Your task to perform on an android device: install app "Google News" Image 0: 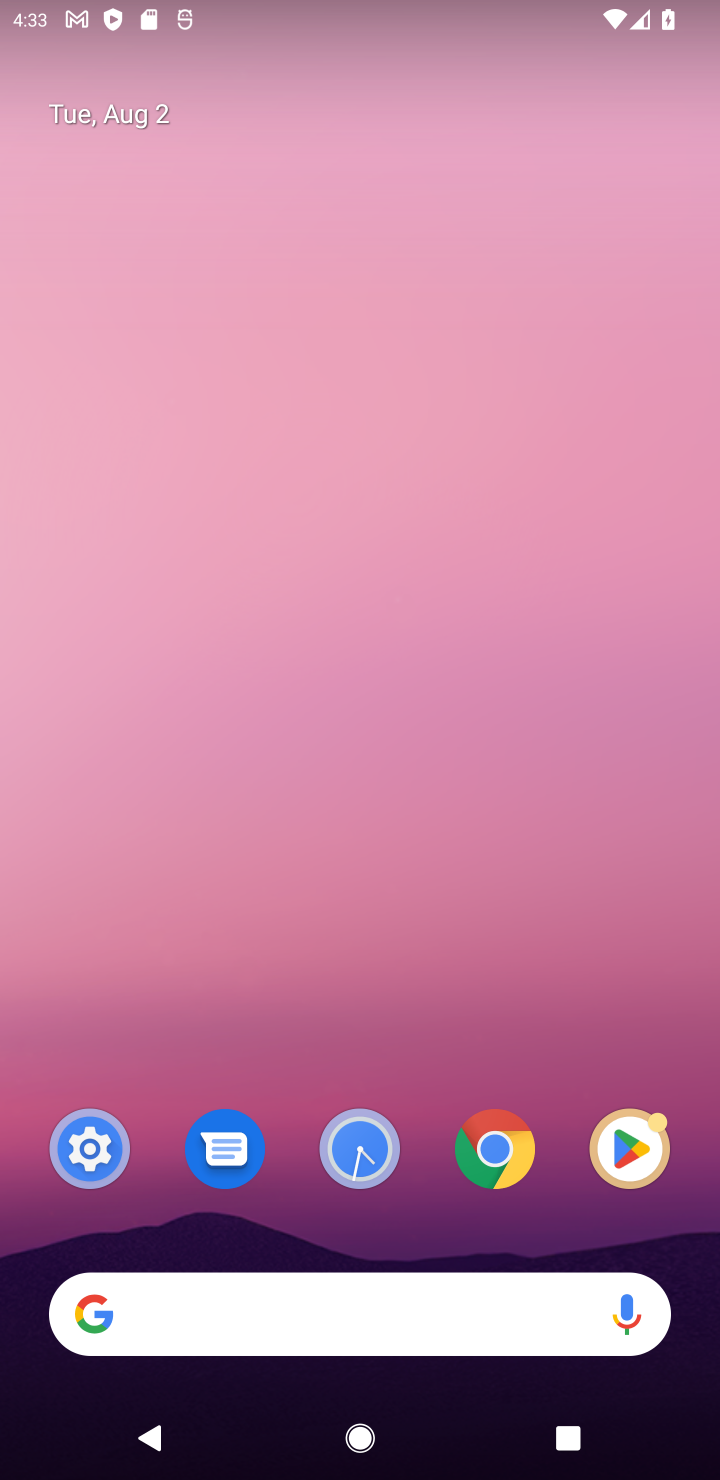
Step 0: drag from (79, 1374) to (318, 496)
Your task to perform on an android device: install app "Google News" Image 1: 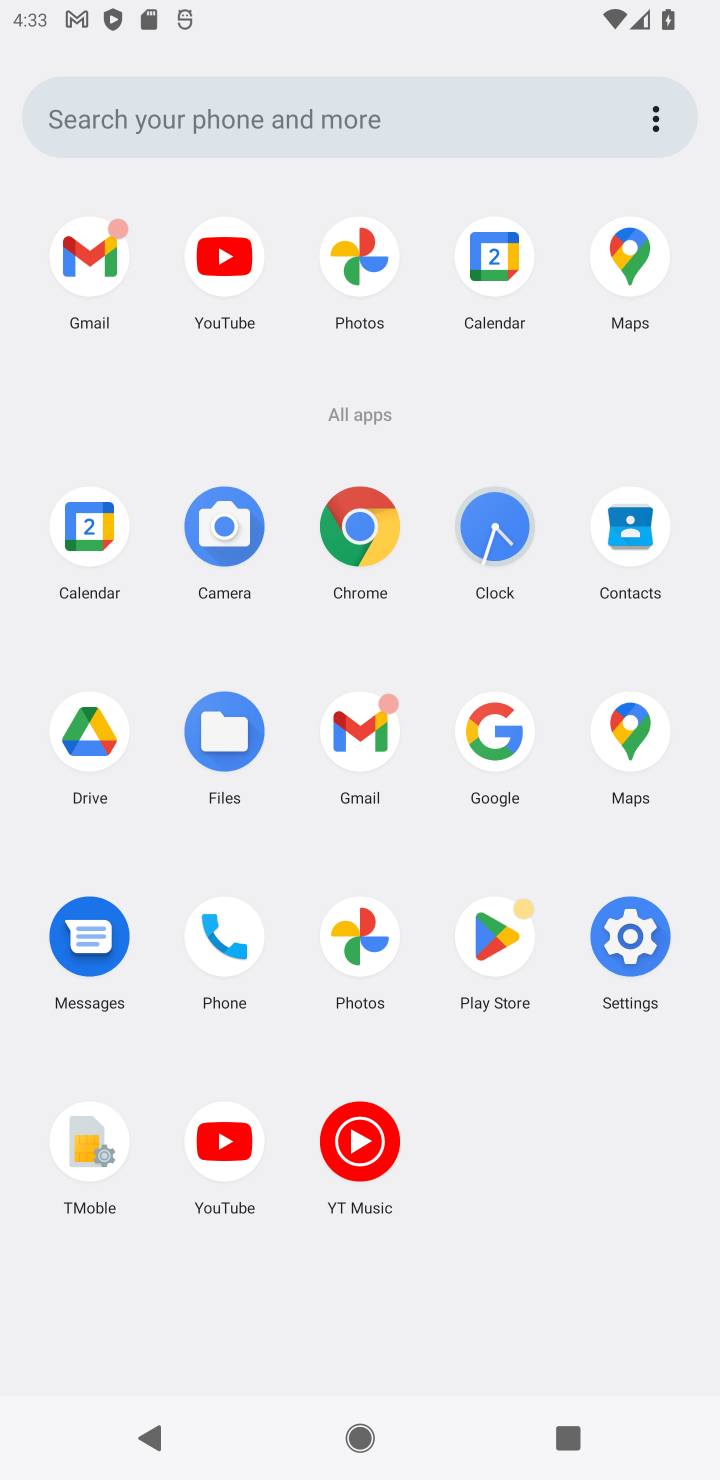
Step 1: click (483, 922)
Your task to perform on an android device: install app "Google News" Image 2: 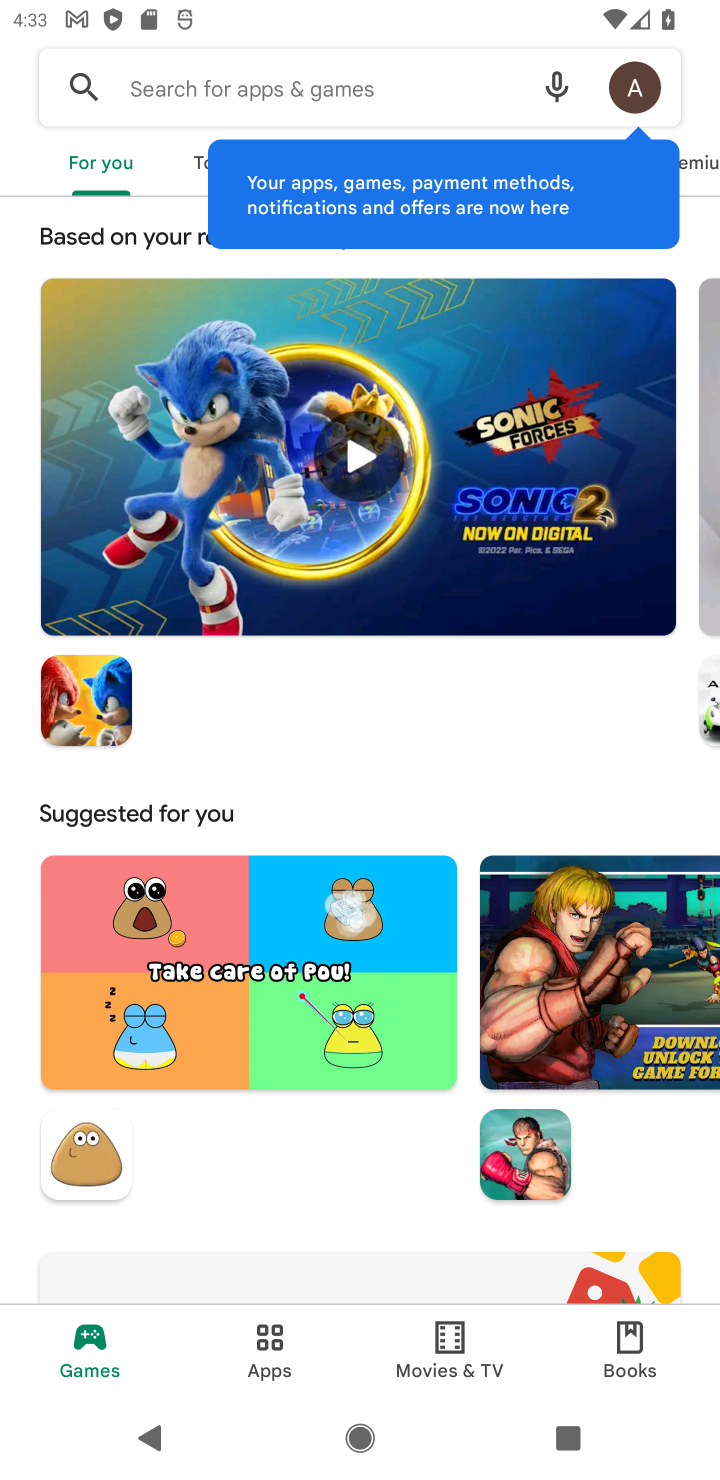
Step 2: click (185, 96)
Your task to perform on an android device: install app "Google News" Image 3: 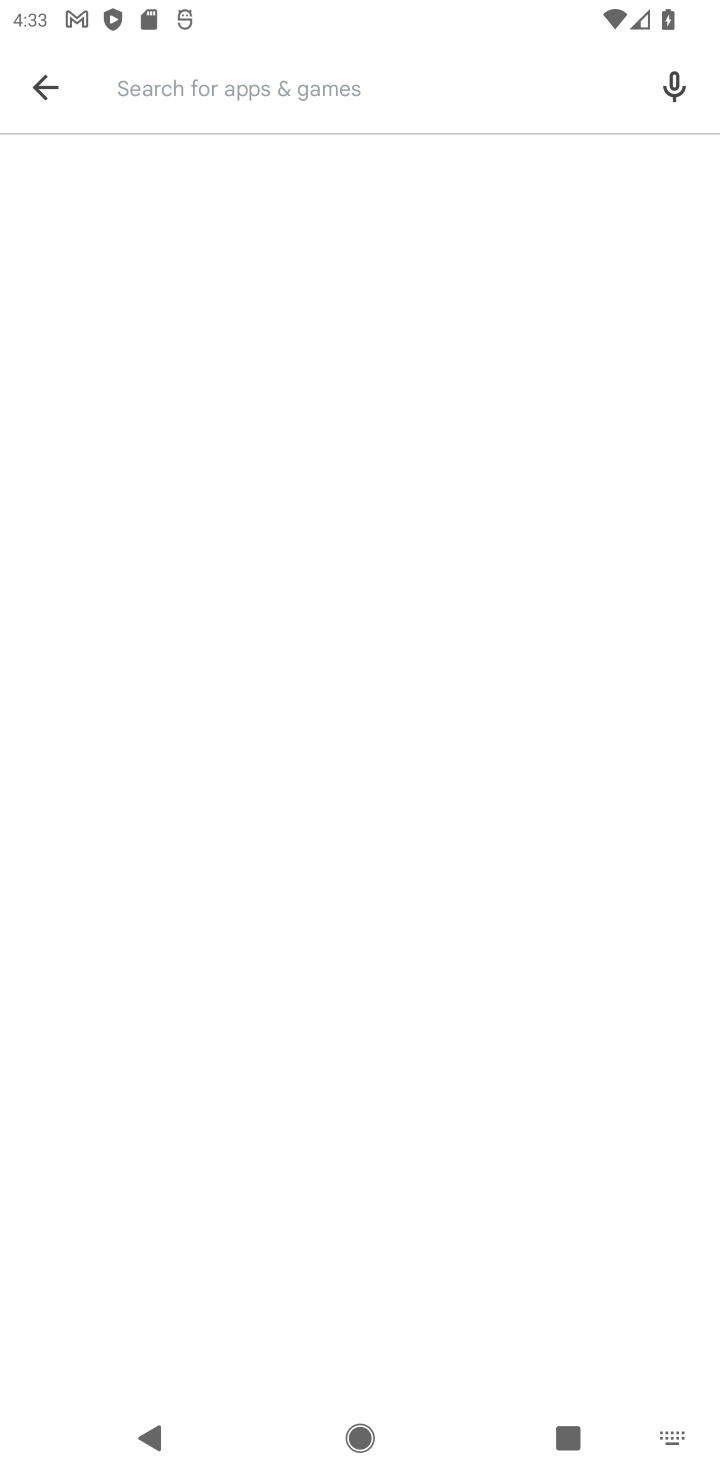
Step 3: click (150, 70)
Your task to perform on an android device: install app "Google News" Image 4: 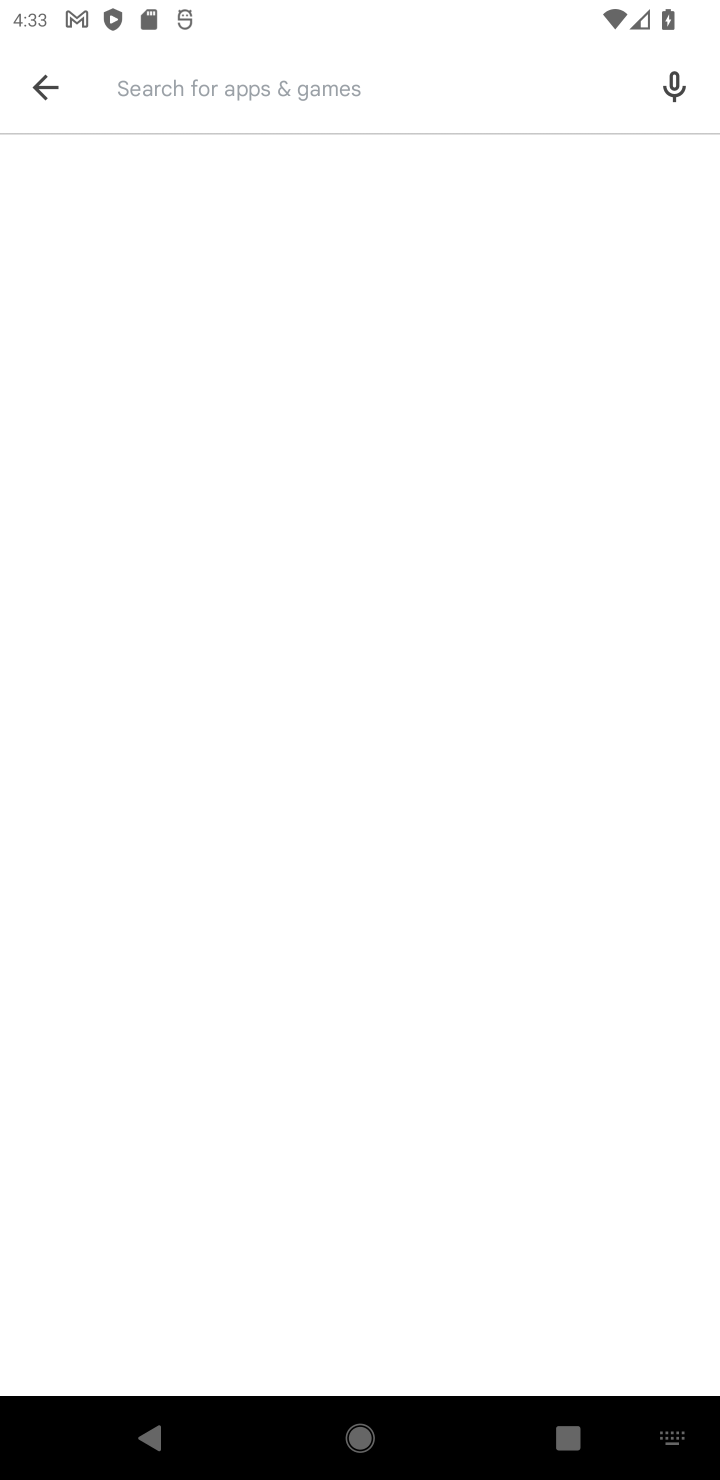
Step 4: type "Google News"
Your task to perform on an android device: install app "Google News" Image 5: 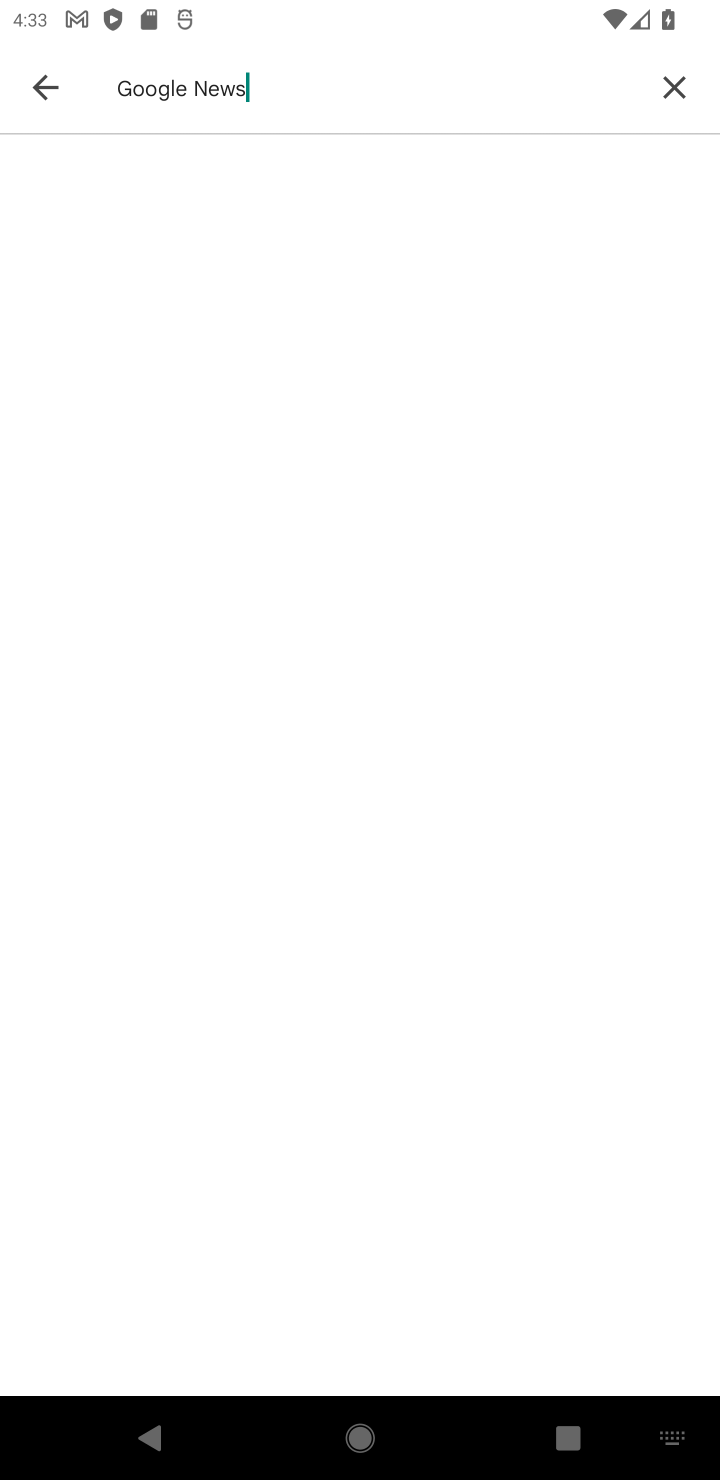
Step 5: type ""
Your task to perform on an android device: install app "Google News" Image 6: 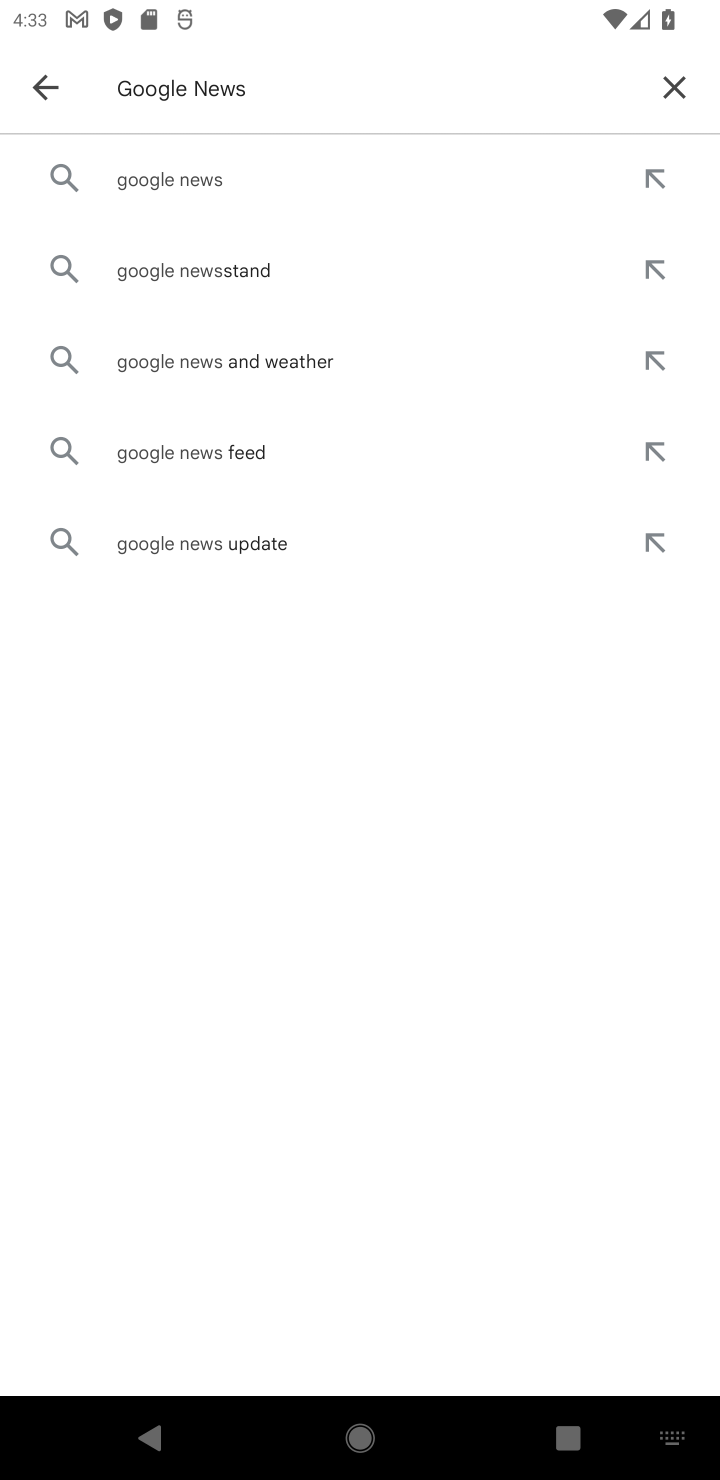
Step 6: click (220, 177)
Your task to perform on an android device: install app "Google News" Image 7: 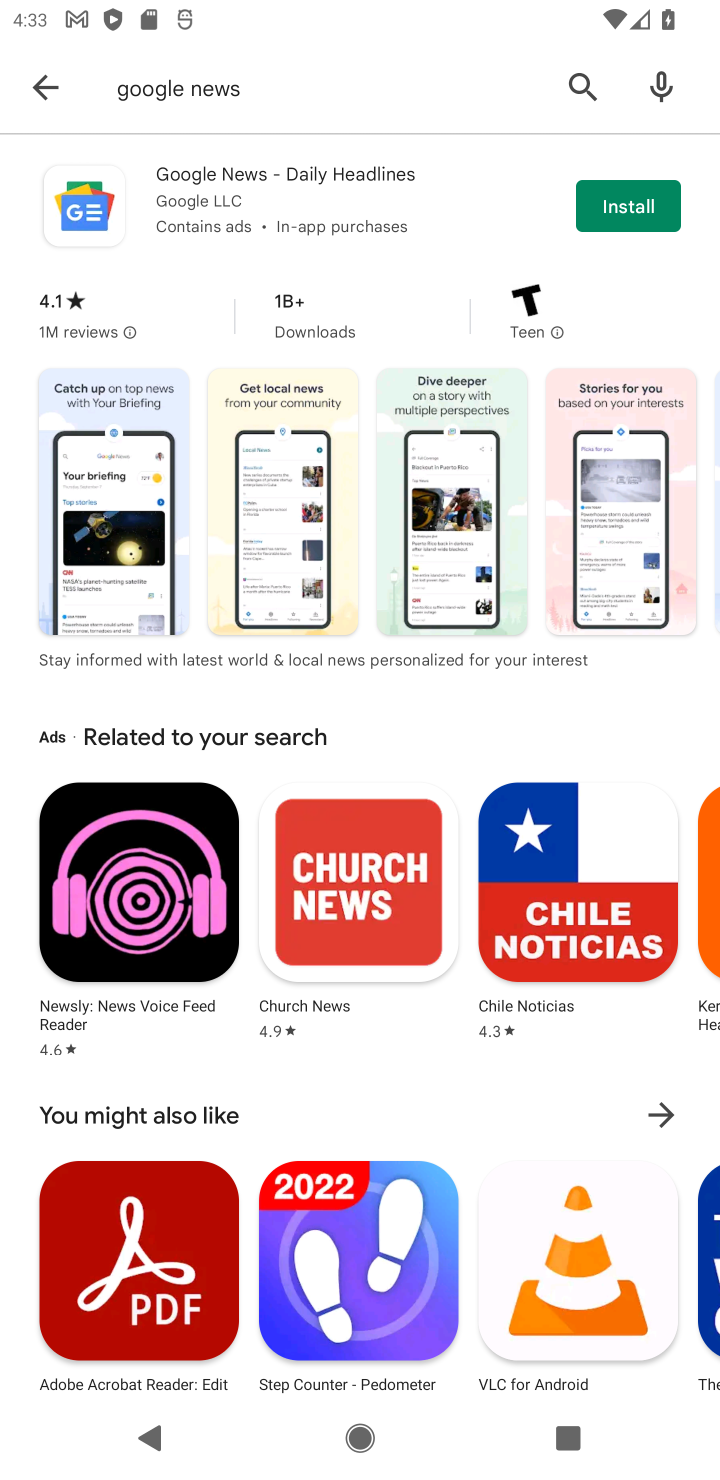
Step 7: click (657, 216)
Your task to perform on an android device: install app "Google News" Image 8: 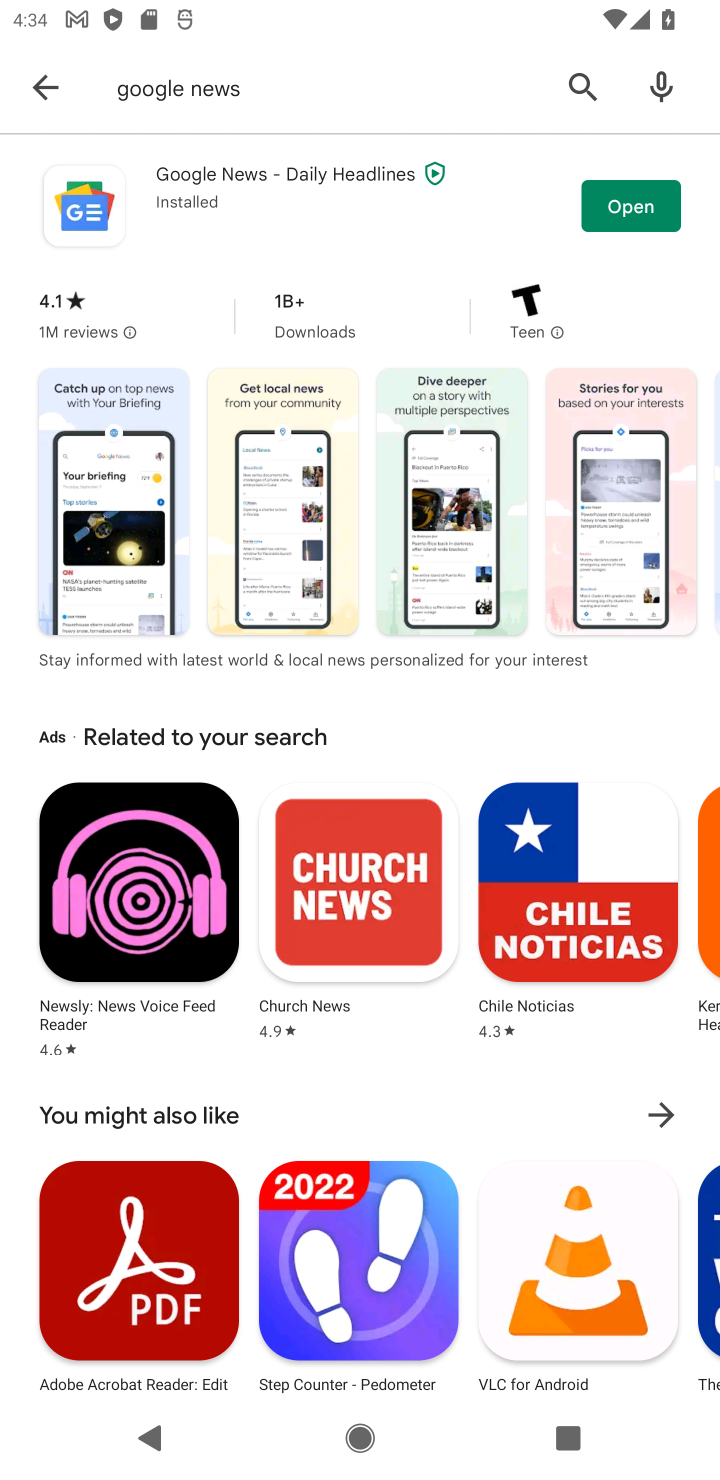
Step 8: task complete